Your task to perform on an android device: Turn on the flashlight Image 0: 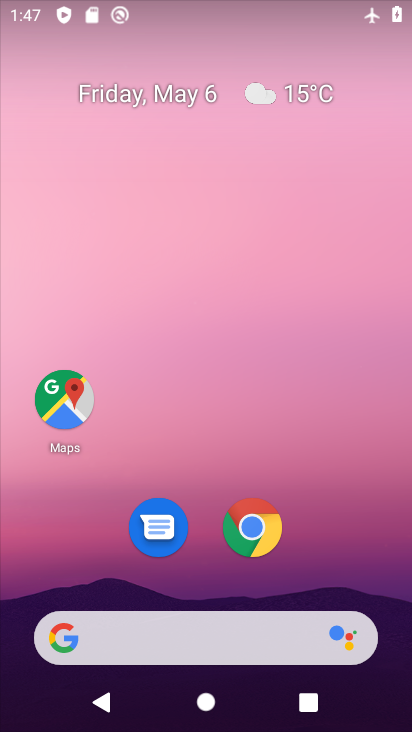
Step 0: drag from (314, 515) to (60, 124)
Your task to perform on an android device: Turn on the flashlight Image 1: 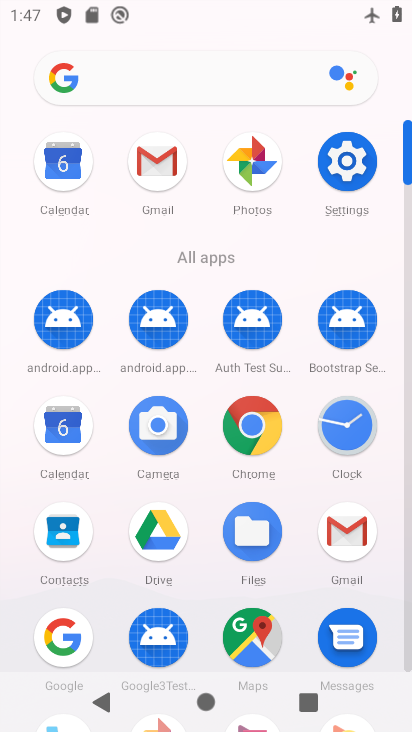
Step 1: click (338, 157)
Your task to perform on an android device: Turn on the flashlight Image 2: 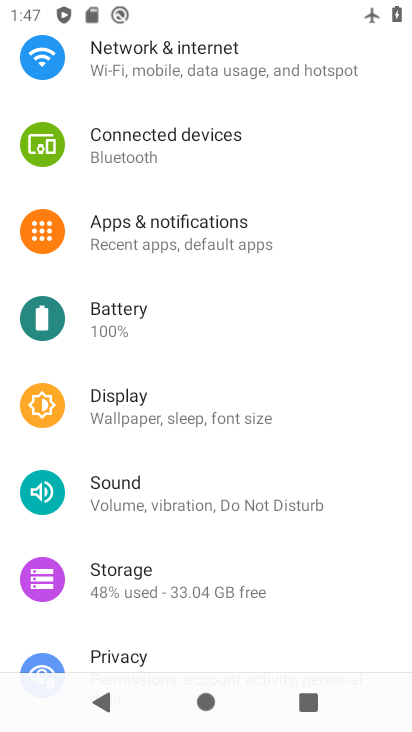
Step 2: drag from (267, 92) to (192, 412)
Your task to perform on an android device: Turn on the flashlight Image 3: 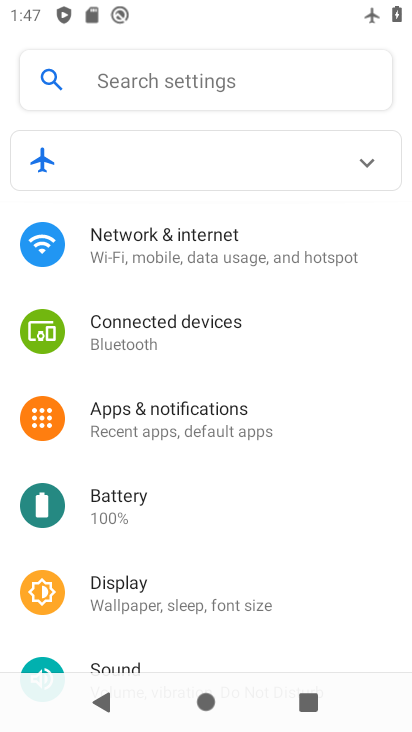
Step 3: click (143, 75)
Your task to perform on an android device: Turn on the flashlight Image 4: 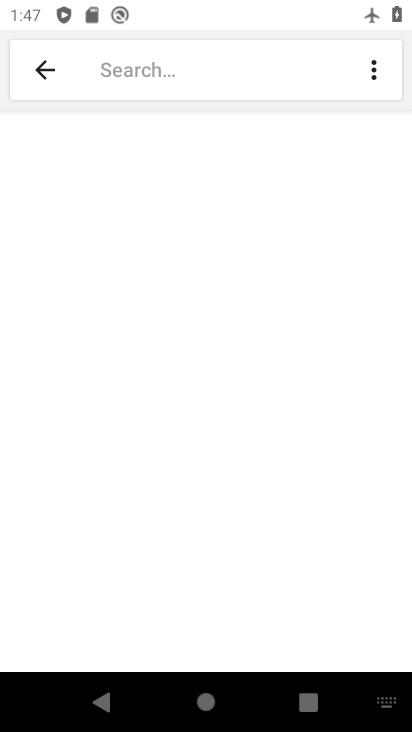
Step 4: type "flashlight"
Your task to perform on an android device: Turn on the flashlight Image 5: 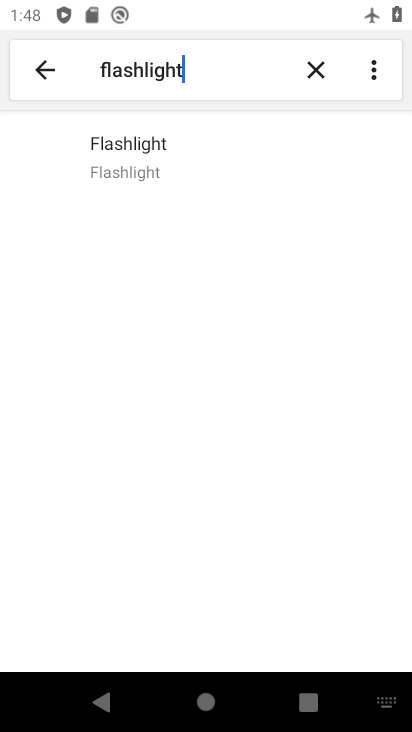
Step 5: click (149, 168)
Your task to perform on an android device: Turn on the flashlight Image 6: 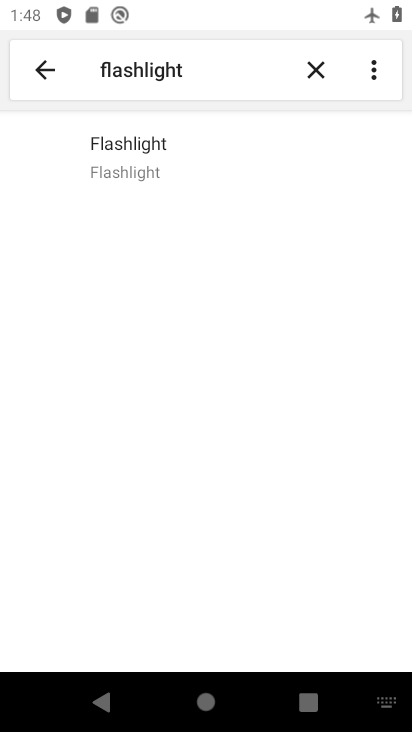
Step 6: click (145, 156)
Your task to perform on an android device: Turn on the flashlight Image 7: 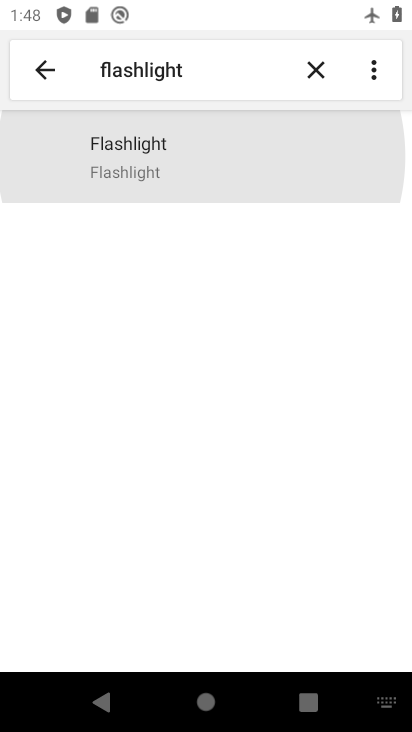
Step 7: click (145, 156)
Your task to perform on an android device: Turn on the flashlight Image 8: 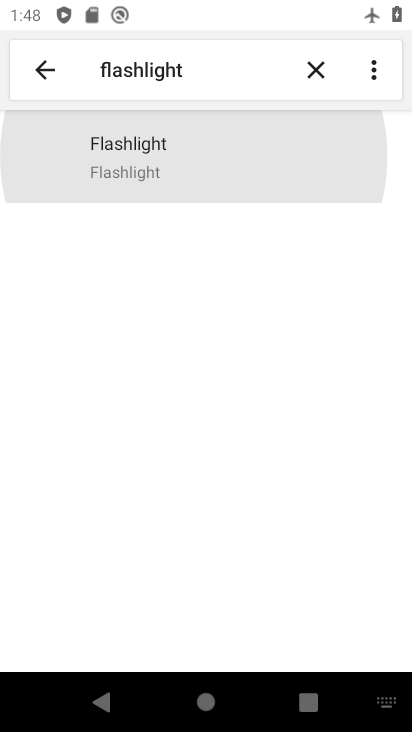
Step 8: click (262, 141)
Your task to perform on an android device: Turn on the flashlight Image 9: 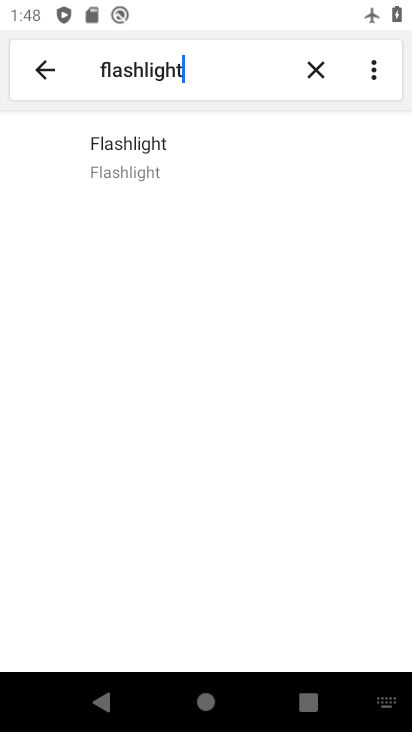
Step 9: task complete